Your task to perform on an android device: What's US dollar exchange rate against the British Pound? Image 0: 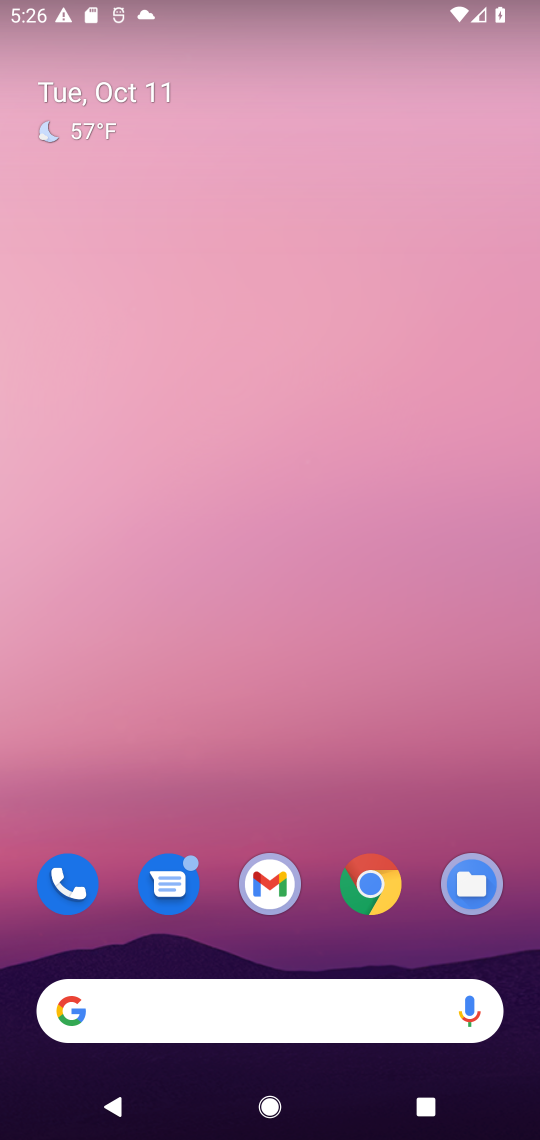
Step 0: drag from (316, 978) to (274, 1)
Your task to perform on an android device: What's US dollar exchange rate against the British Pound? Image 1: 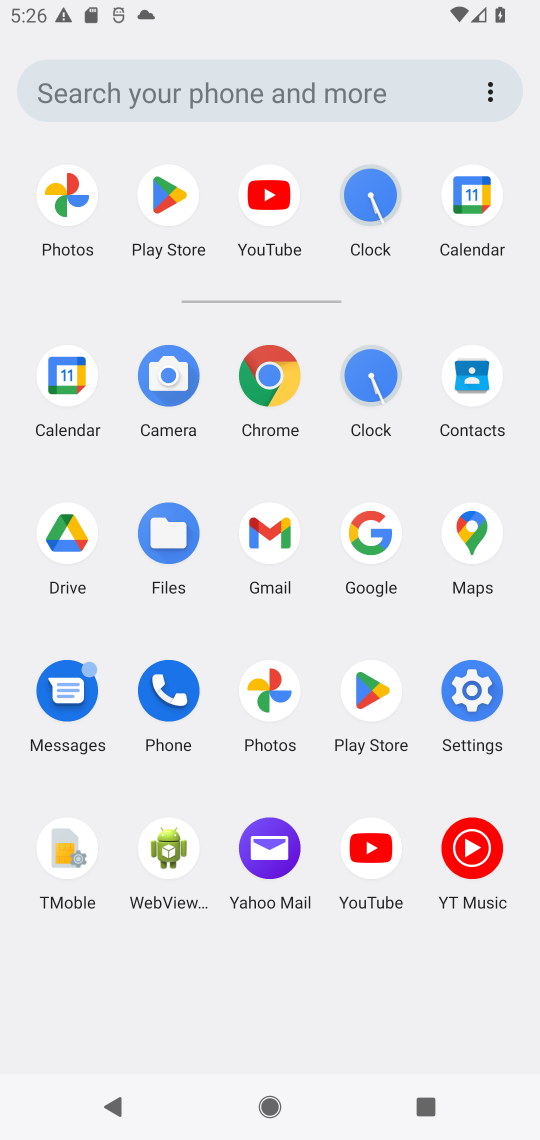
Step 1: click (371, 550)
Your task to perform on an android device: What's US dollar exchange rate against the British Pound? Image 2: 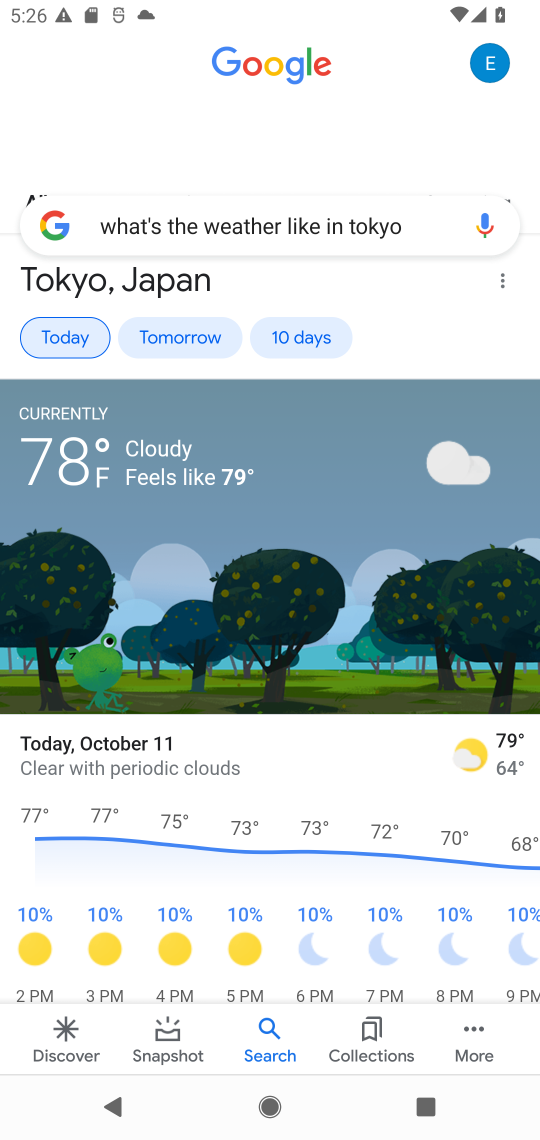
Step 2: click (356, 213)
Your task to perform on an android device: What's US dollar exchange rate against the British Pound? Image 3: 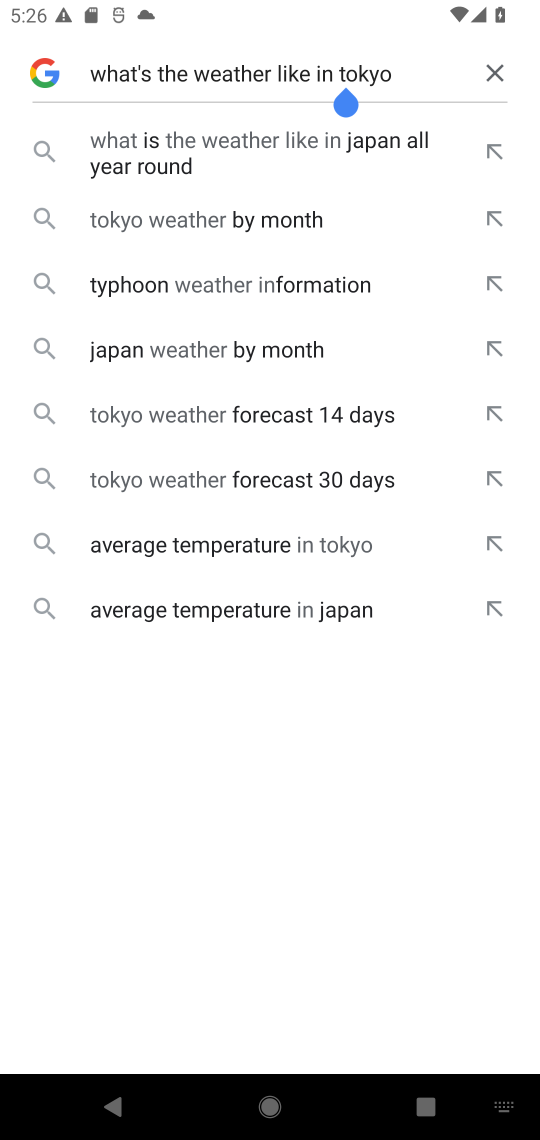
Step 3: click (496, 57)
Your task to perform on an android device: What's US dollar exchange rate against the British Pound? Image 4: 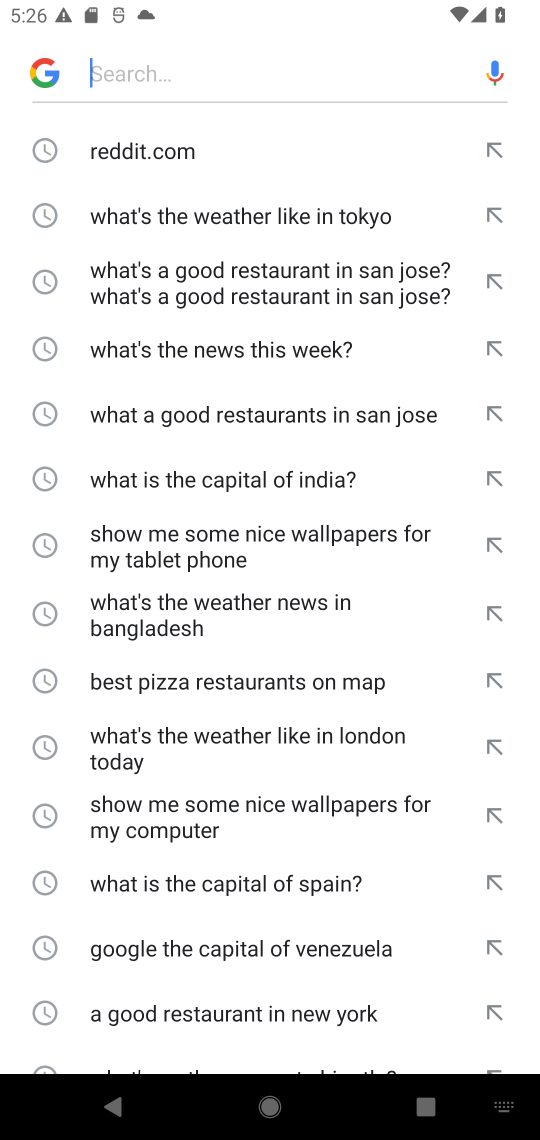
Step 4: type "What's US dollar exchange rate against the British Pound?"
Your task to perform on an android device: What's US dollar exchange rate against the British Pound? Image 5: 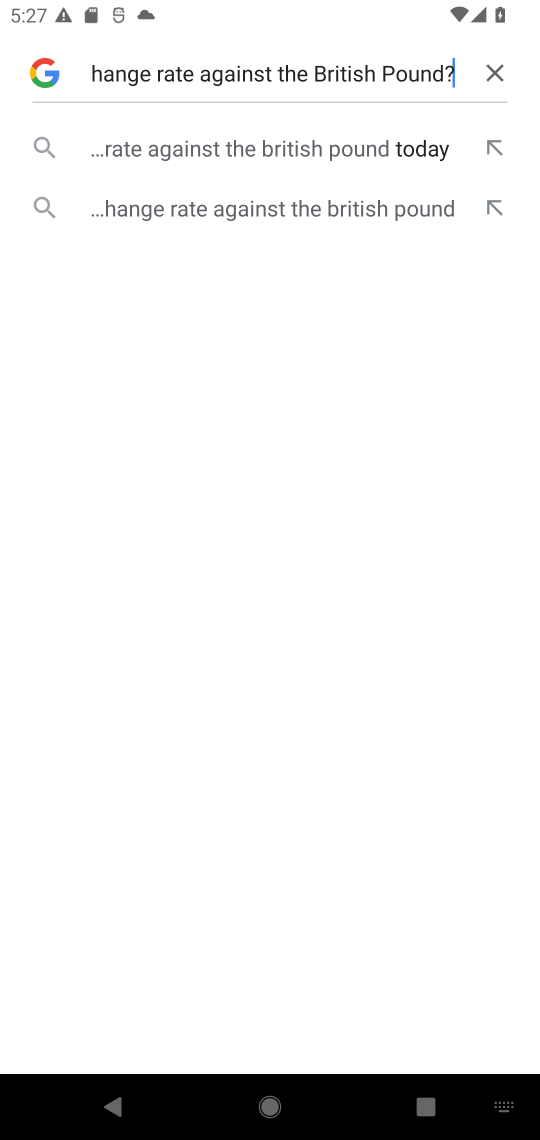
Step 5: click (237, 153)
Your task to perform on an android device: What's US dollar exchange rate against the British Pound? Image 6: 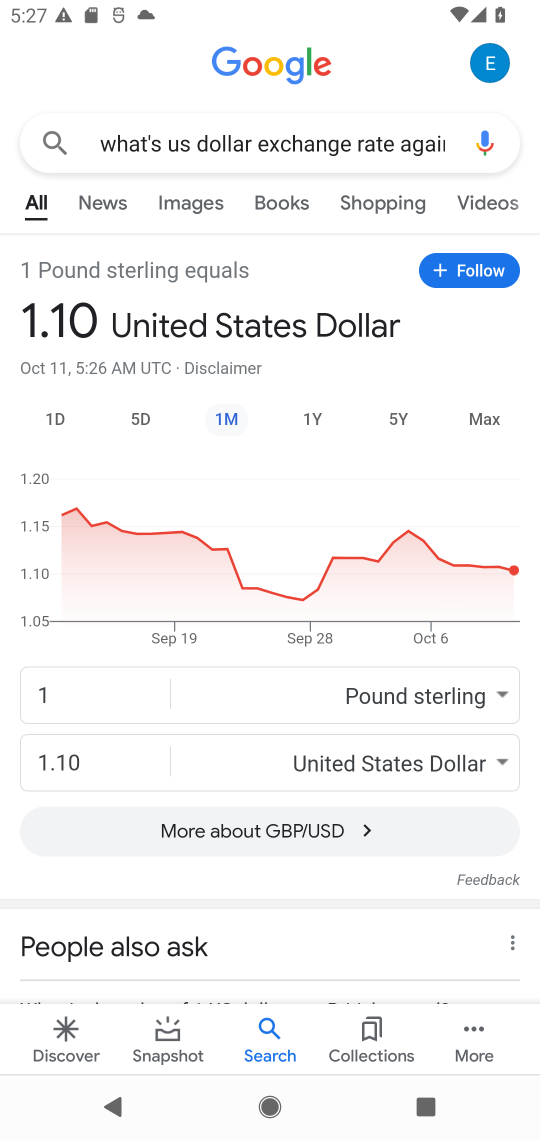
Step 6: task complete